Your task to perform on an android device: Open maps Image 0: 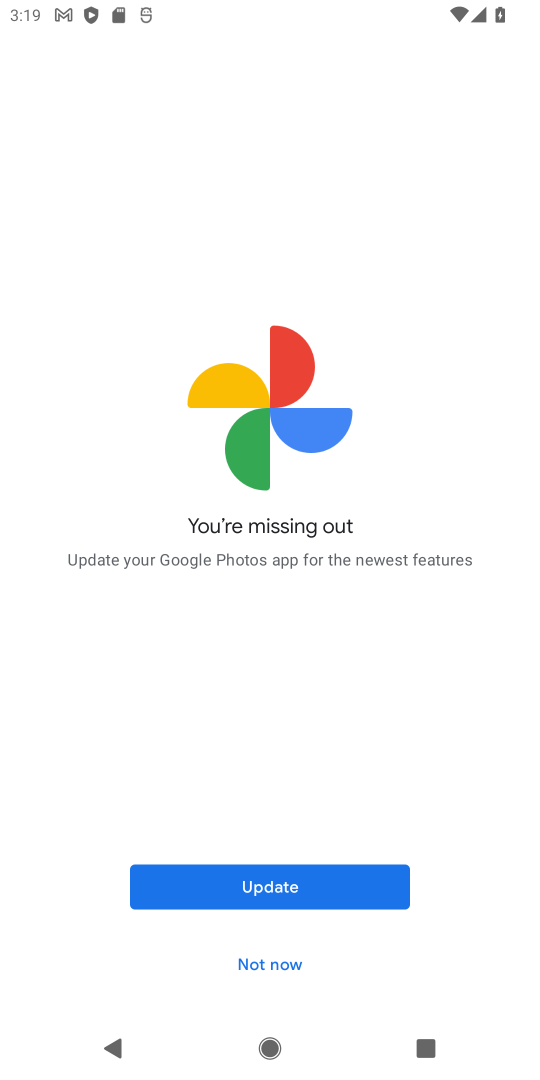
Step 0: press home button
Your task to perform on an android device: Open maps Image 1: 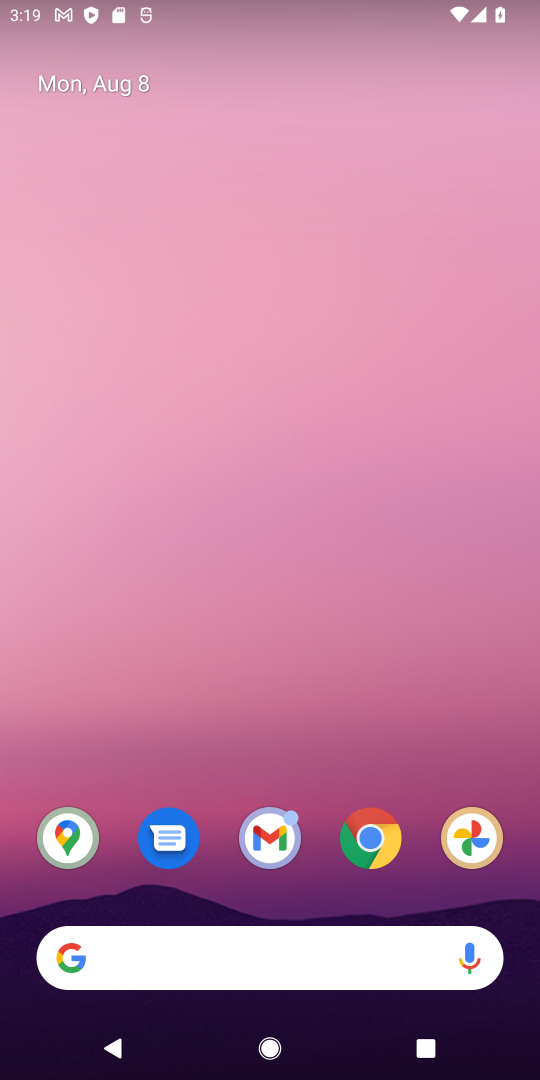
Step 1: click (66, 832)
Your task to perform on an android device: Open maps Image 2: 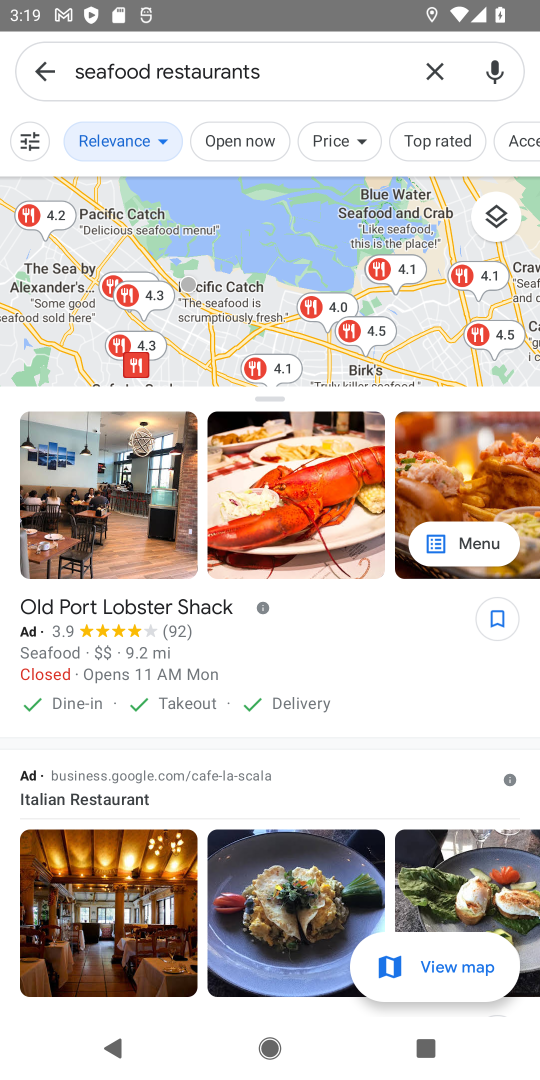
Step 2: click (441, 72)
Your task to perform on an android device: Open maps Image 3: 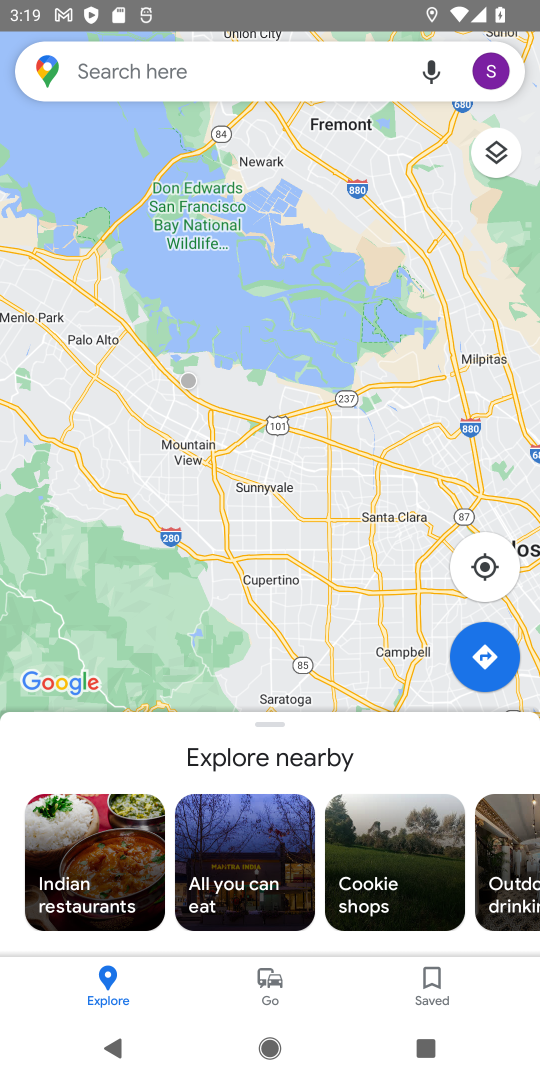
Step 3: task complete